Your task to perform on an android device: Open display settings Image 0: 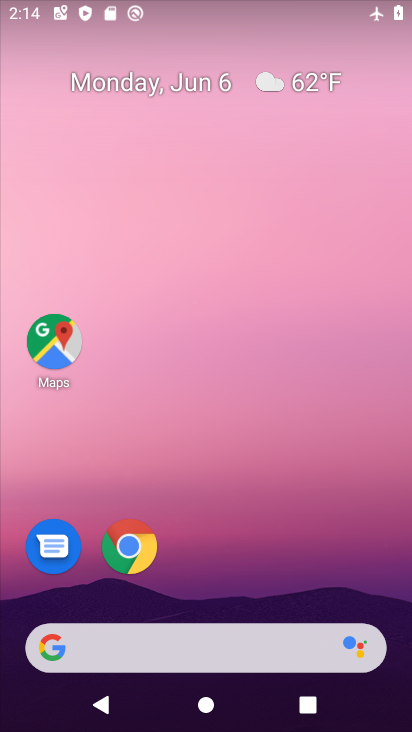
Step 0: drag from (335, 524) to (292, 164)
Your task to perform on an android device: Open display settings Image 1: 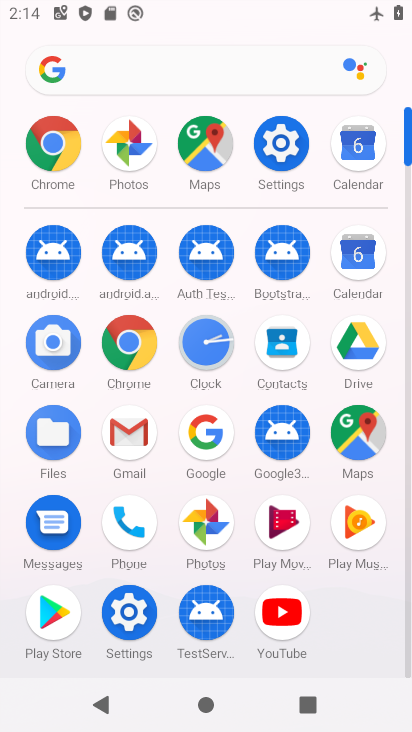
Step 1: click (268, 164)
Your task to perform on an android device: Open display settings Image 2: 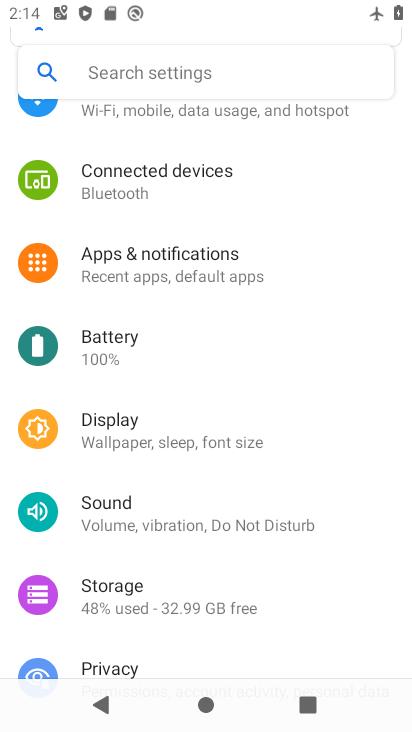
Step 2: click (195, 446)
Your task to perform on an android device: Open display settings Image 3: 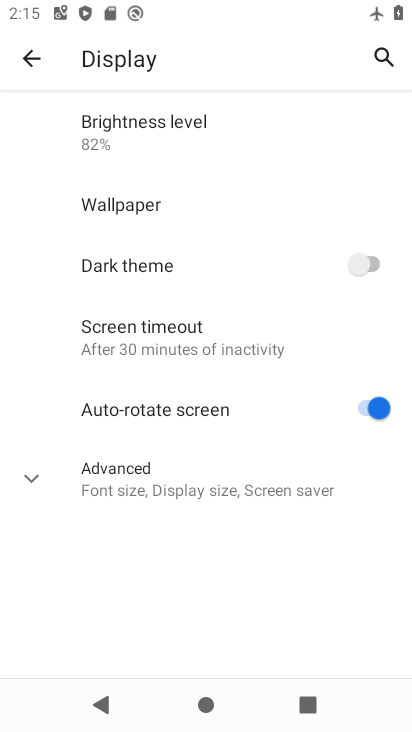
Step 3: task complete